Your task to perform on an android device: Open Wikipedia Image 0: 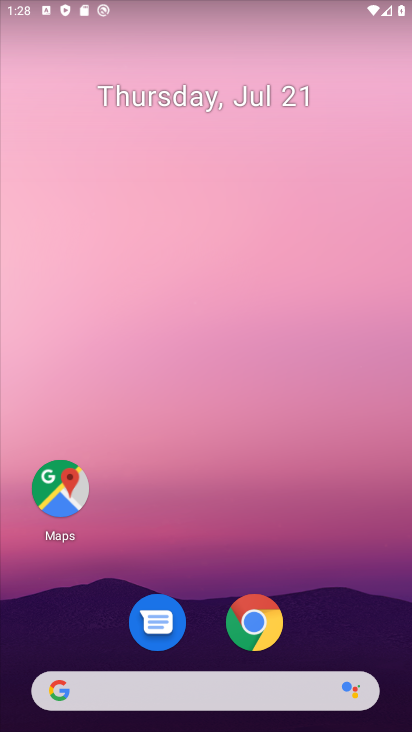
Step 0: press home button
Your task to perform on an android device: Open Wikipedia Image 1: 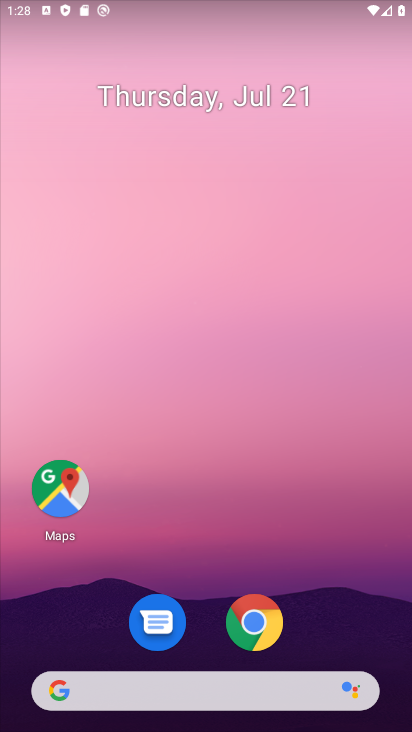
Step 1: click (233, 620)
Your task to perform on an android device: Open Wikipedia Image 2: 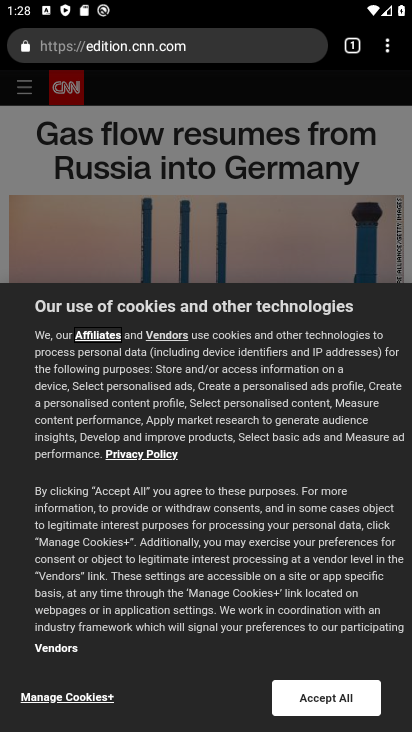
Step 2: click (383, 50)
Your task to perform on an android device: Open Wikipedia Image 3: 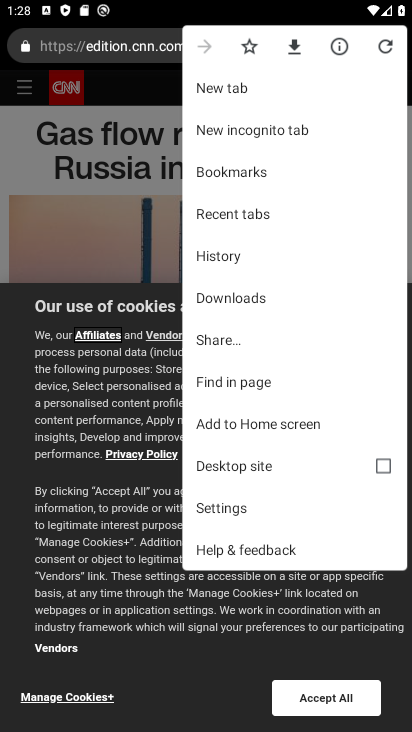
Step 3: click (244, 83)
Your task to perform on an android device: Open Wikipedia Image 4: 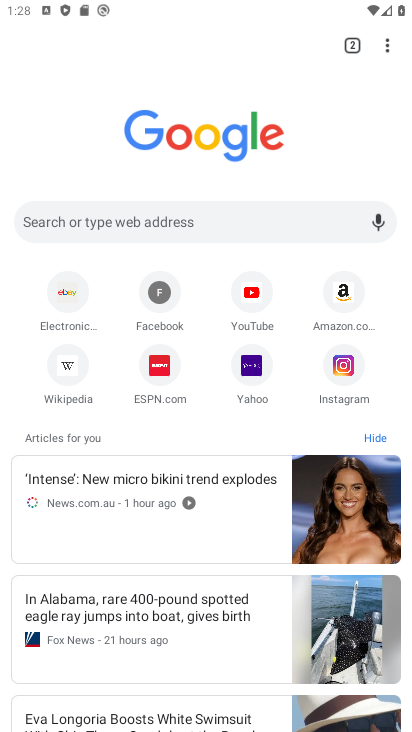
Step 4: click (73, 370)
Your task to perform on an android device: Open Wikipedia Image 5: 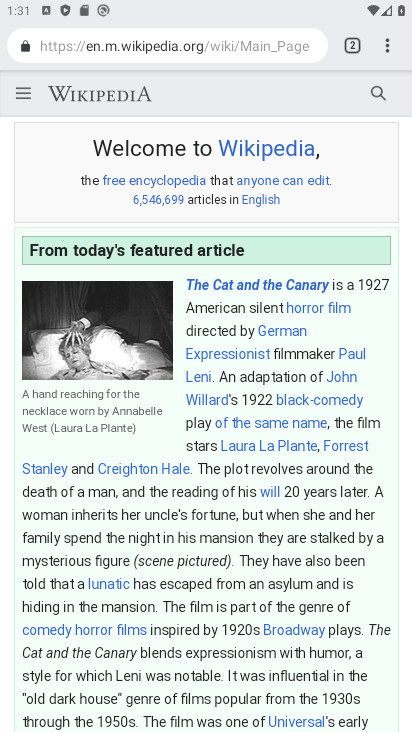
Step 5: task complete